Your task to perform on an android device: Add "dell xps" to the cart on amazon.com Image 0: 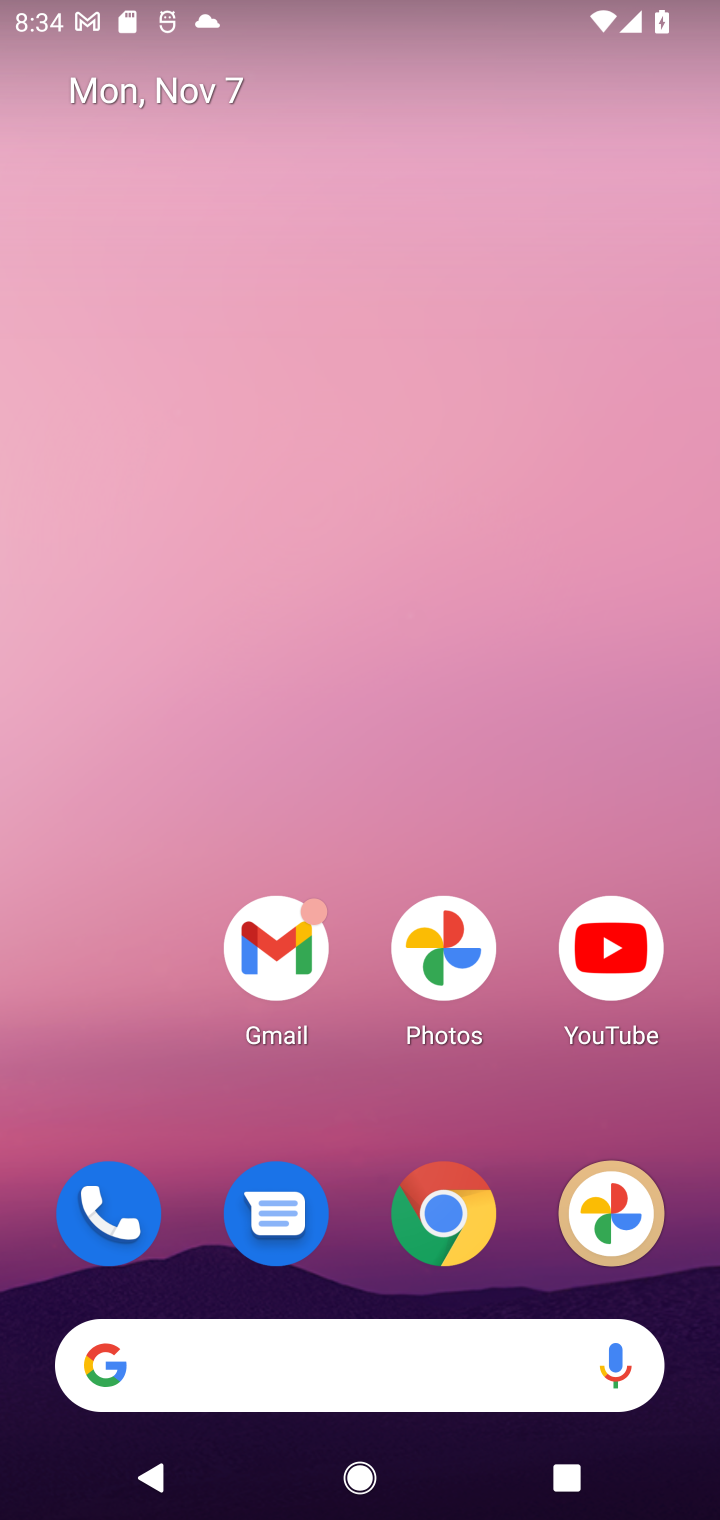
Step 0: click (448, 1208)
Your task to perform on an android device: Add "dell xps" to the cart on amazon.com Image 1: 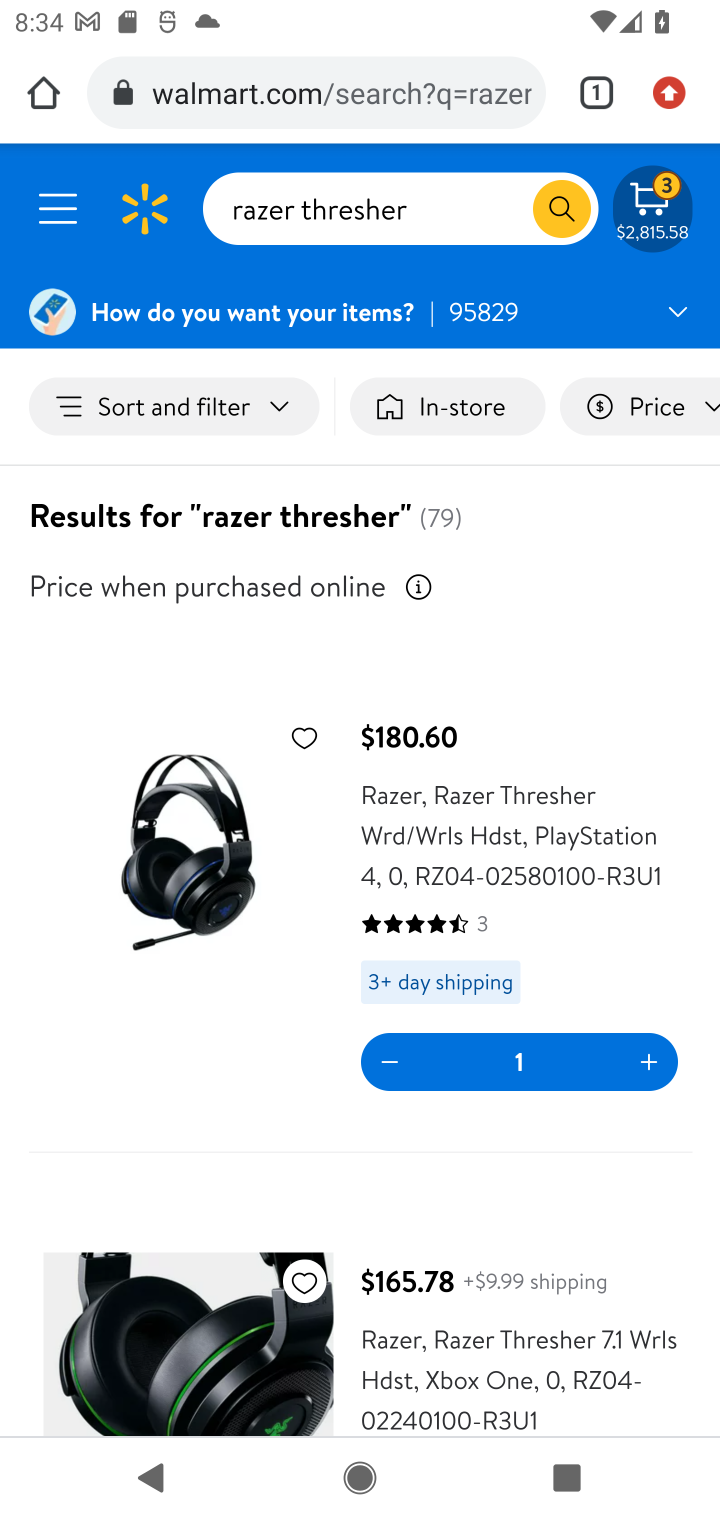
Step 1: click (296, 99)
Your task to perform on an android device: Add "dell xps" to the cart on amazon.com Image 2: 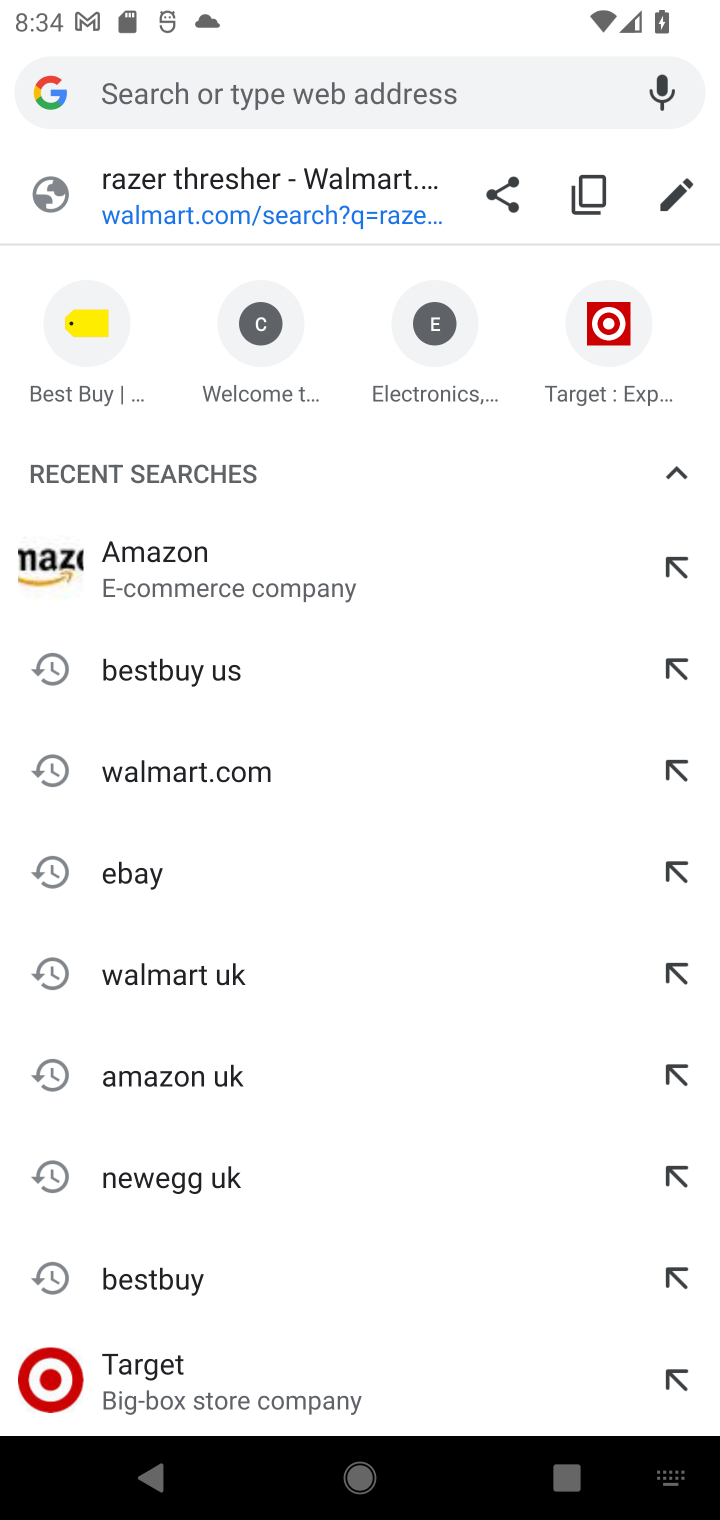
Step 2: click (186, 575)
Your task to perform on an android device: Add "dell xps" to the cart on amazon.com Image 3: 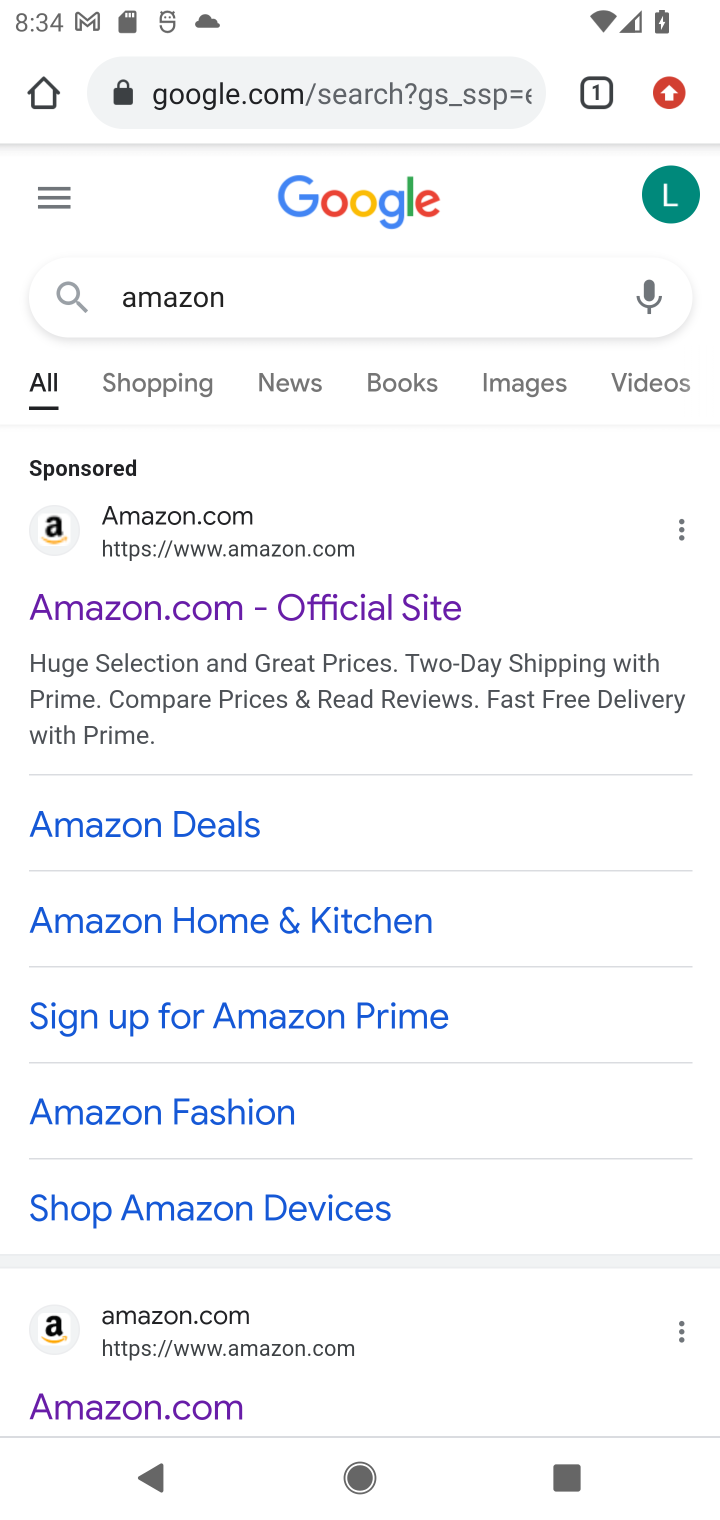
Step 3: drag from (158, 980) to (175, 414)
Your task to perform on an android device: Add "dell xps" to the cart on amazon.com Image 4: 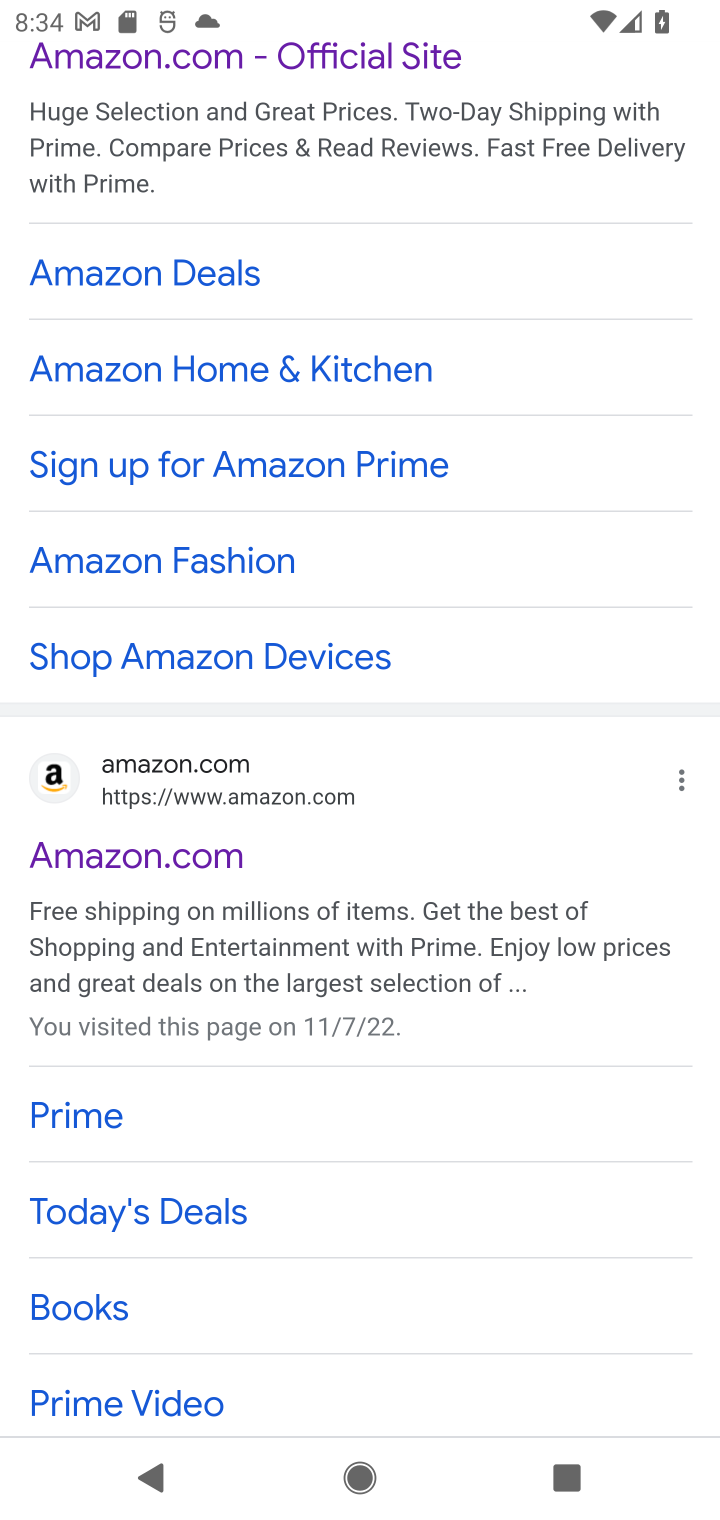
Step 4: click (86, 831)
Your task to perform on an android device: Add "dell xps" to the cart on amazon.com Image 5: 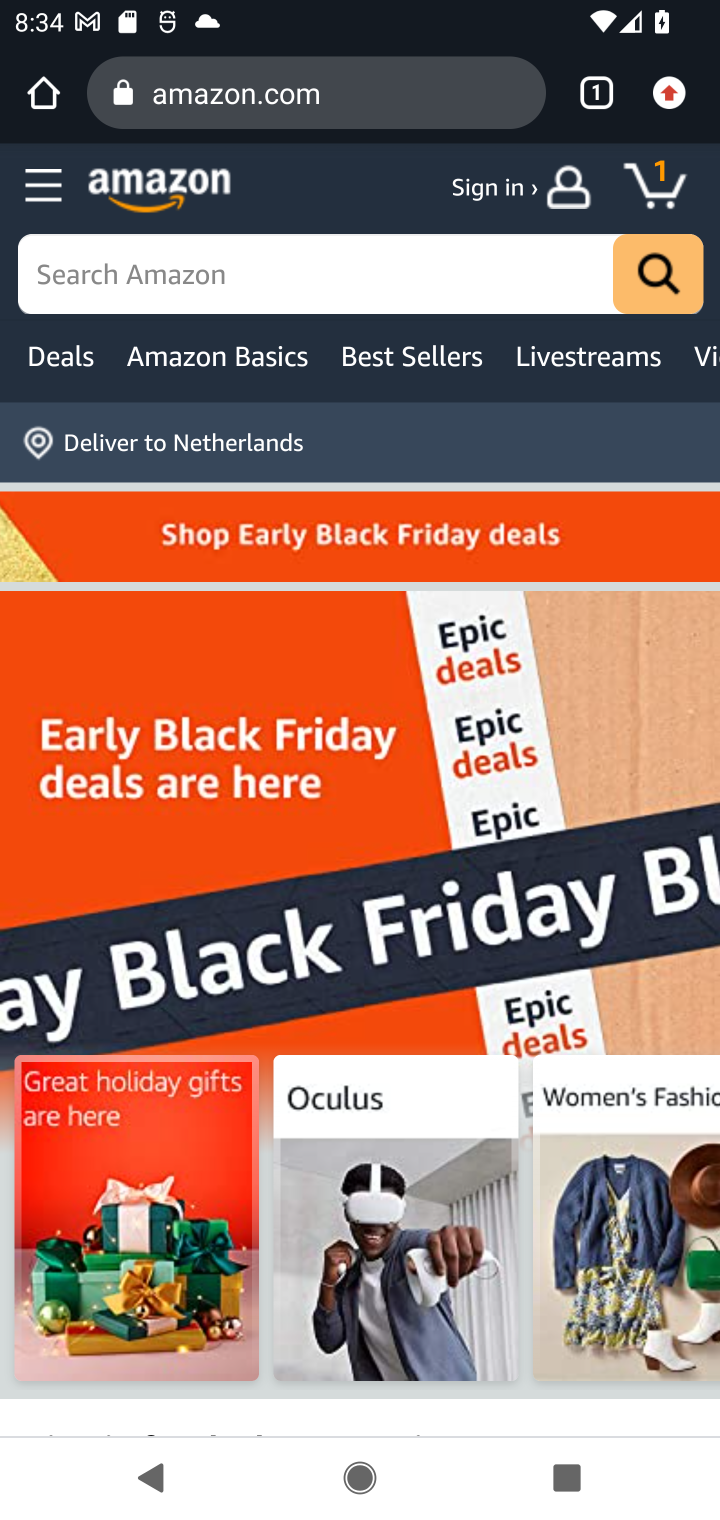
Step 5: click (226, 284)
Your task to perform on an android device: Add "dell xps" to the cart on amazon.com Image 6: 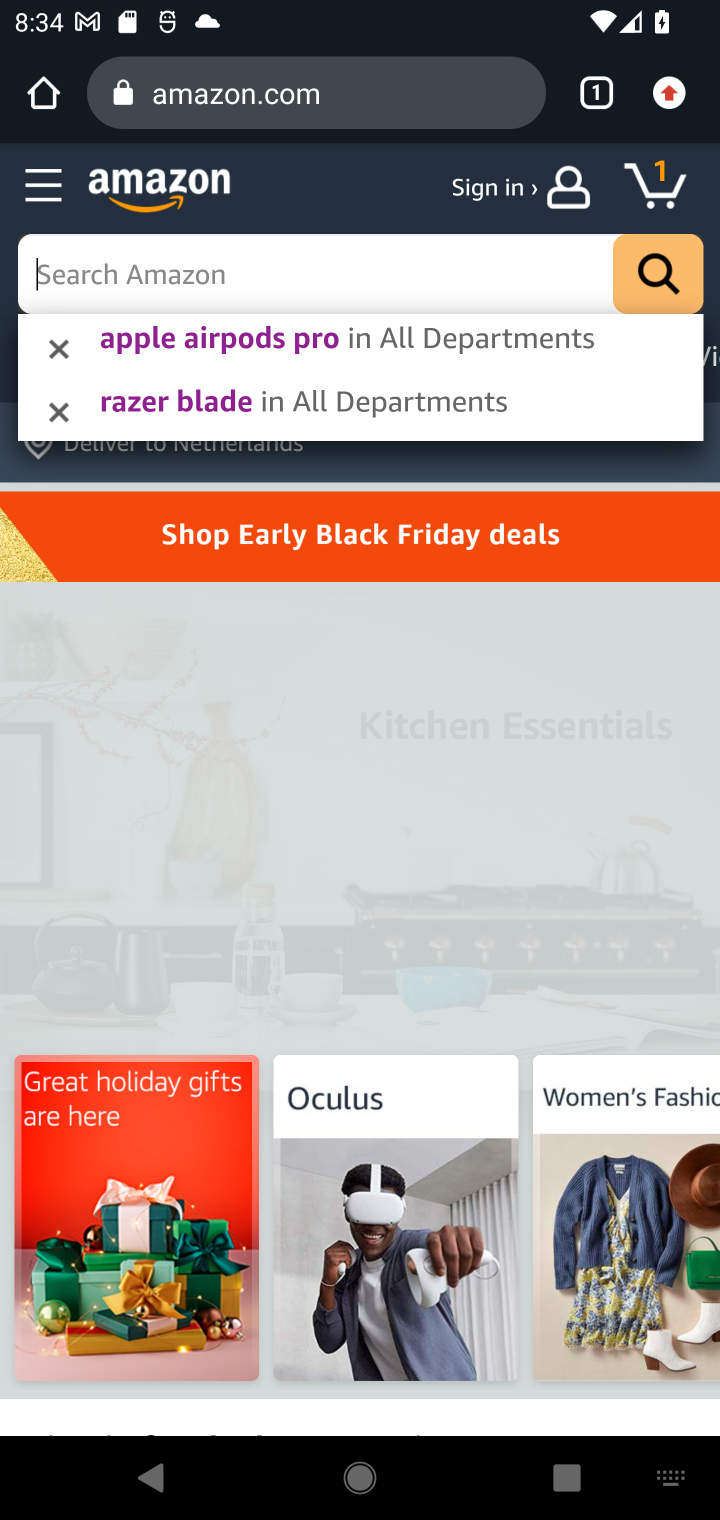
Step 6: type "dell xps"
Your task to perform on an android device: Add "dell xps" to the cart on amazon.com Image 7: 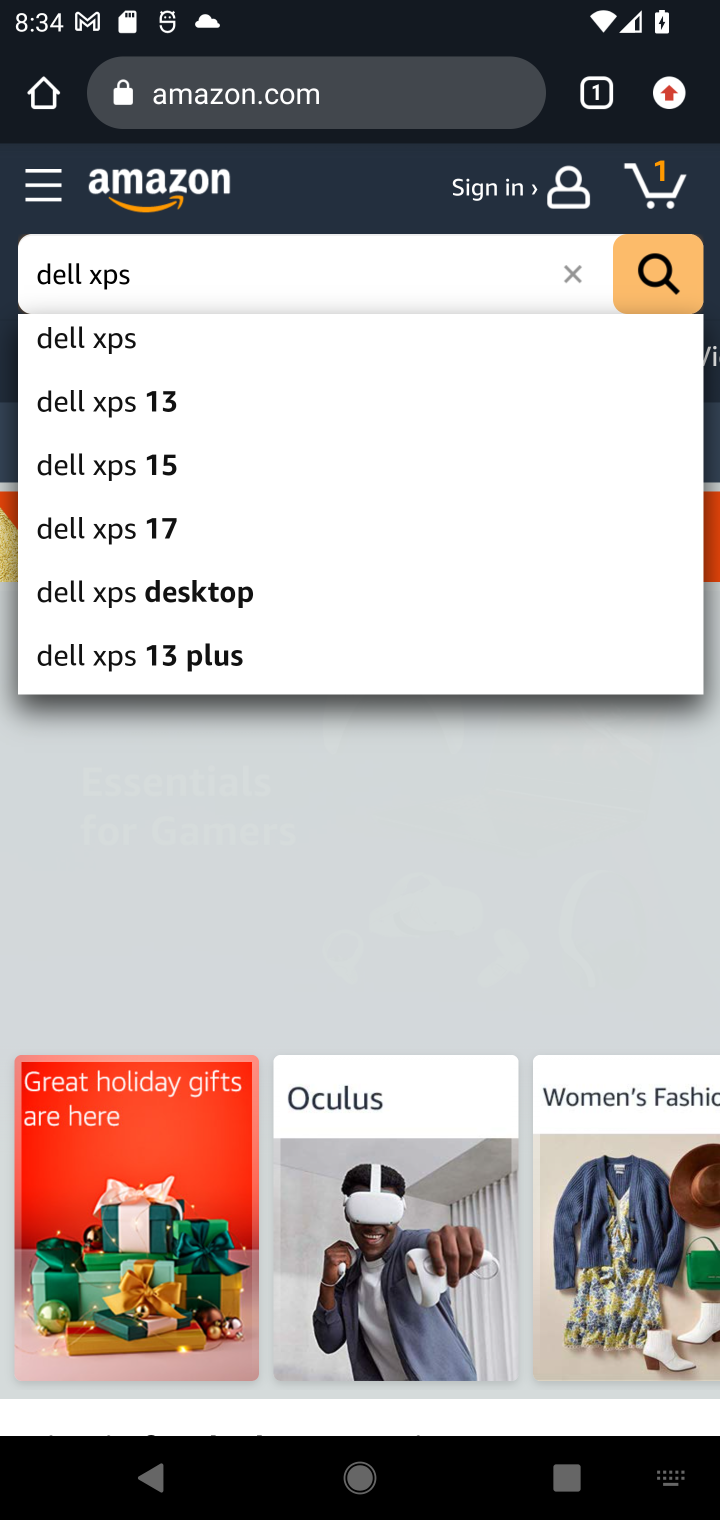
Step 7: click (102, 350)
Your task to perform on an android device: Add "dell xps" to the cart on amazon.com Image 8: 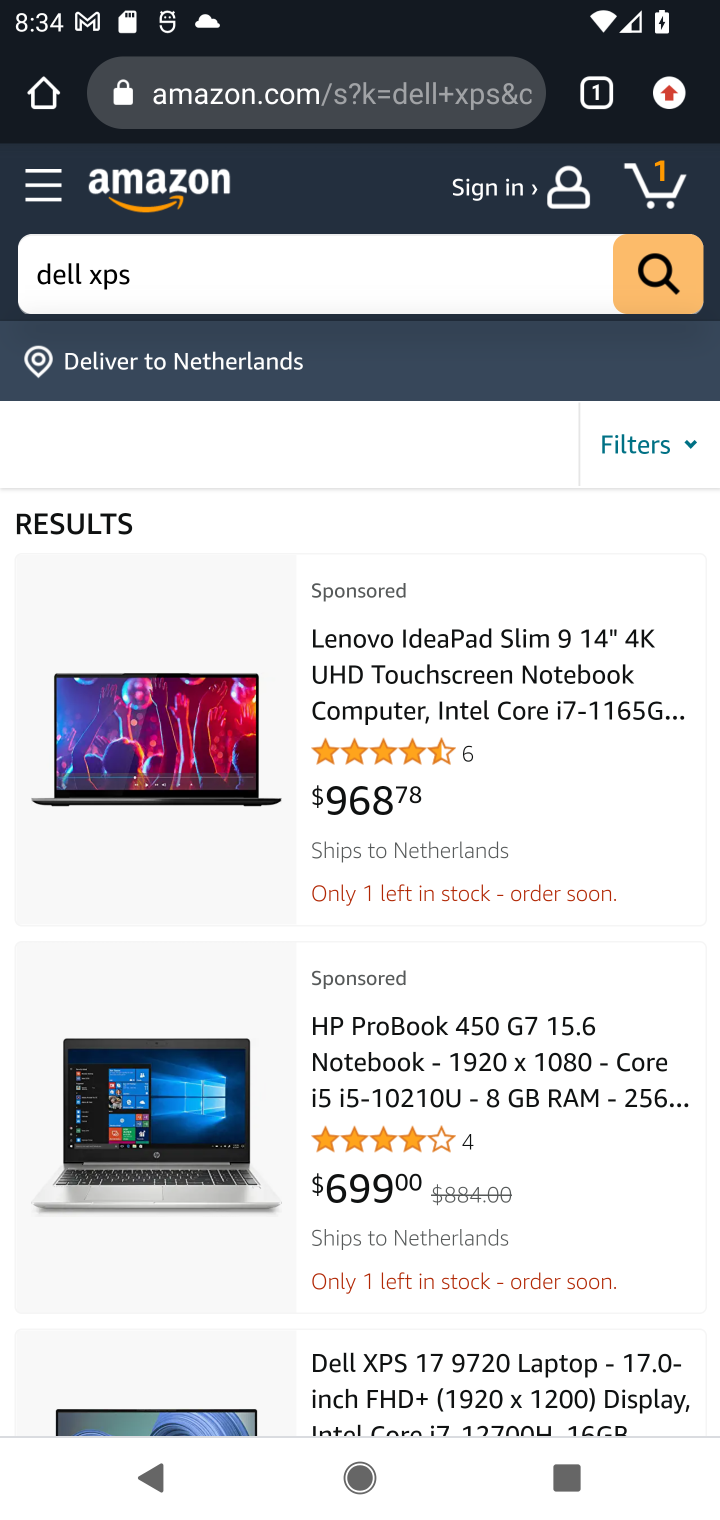
Step 8: drag from (297, 1213) to (341, 778)
Your task to perform on an android device: Add "dell xps" to the cart on amazon.com Image 9: 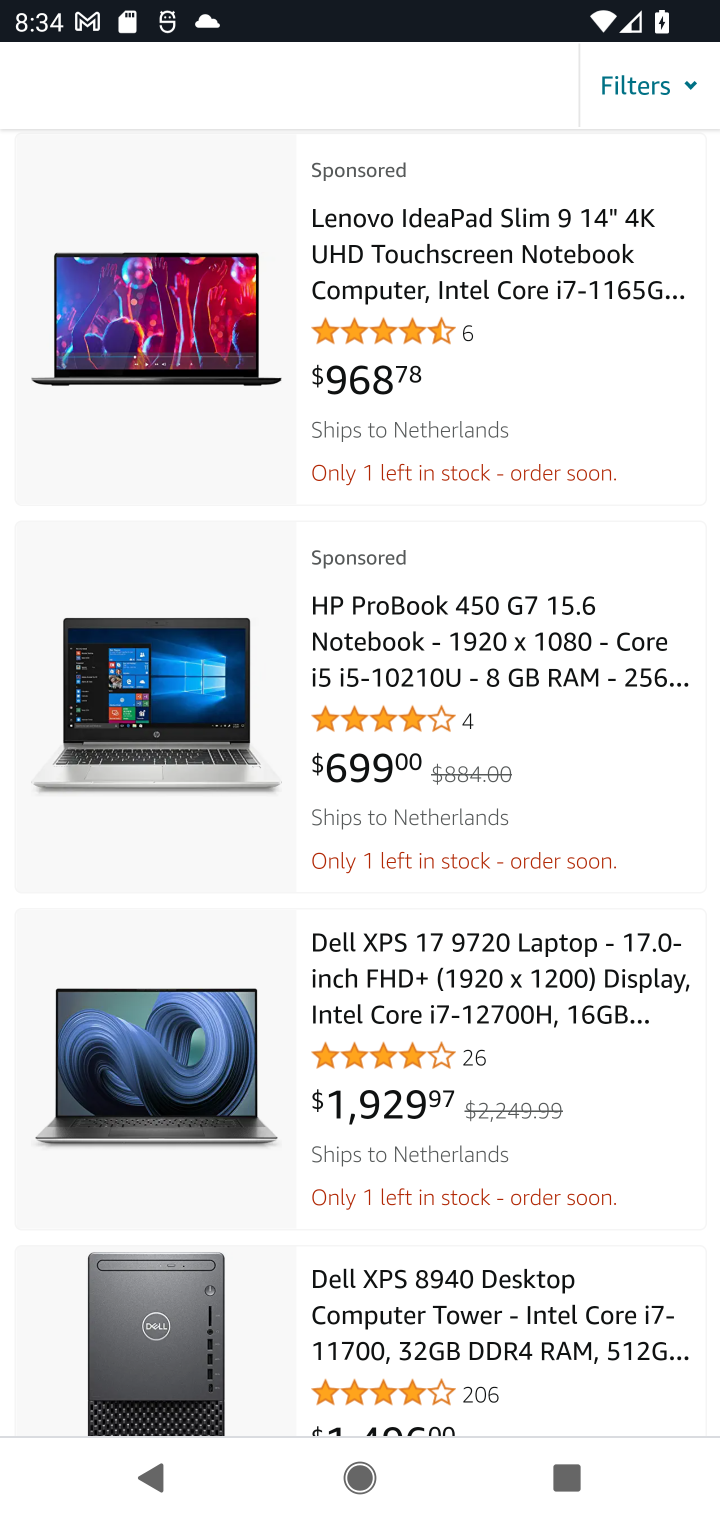
Step 9: click (310, 997)
Your task to perform on an android device: Add "dell xps" to the cart on amazon.com Image 10: 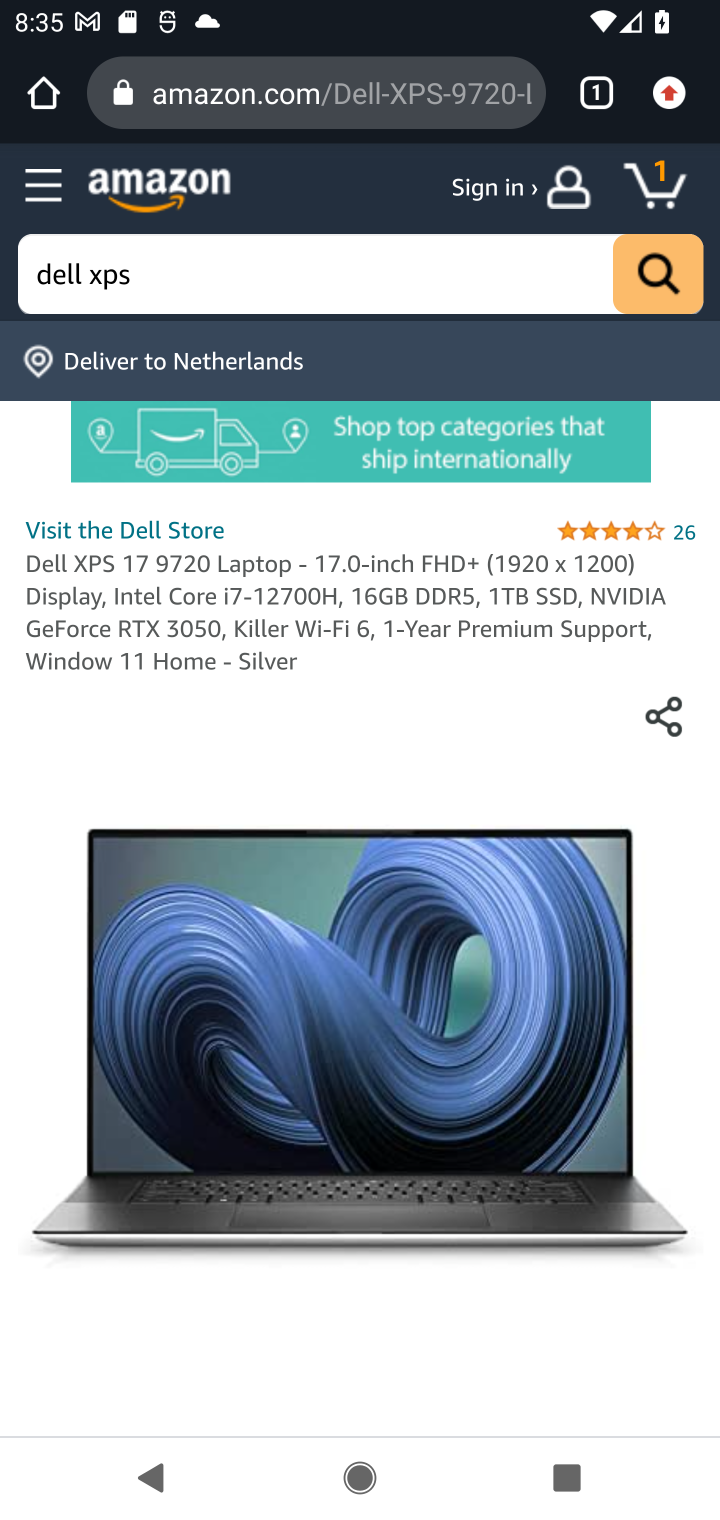
Step 10: drag from (390, 889) to (396, 309)
Your task to perform on an android device: Add "dell xps" to the cart on amazon.com Image 11: 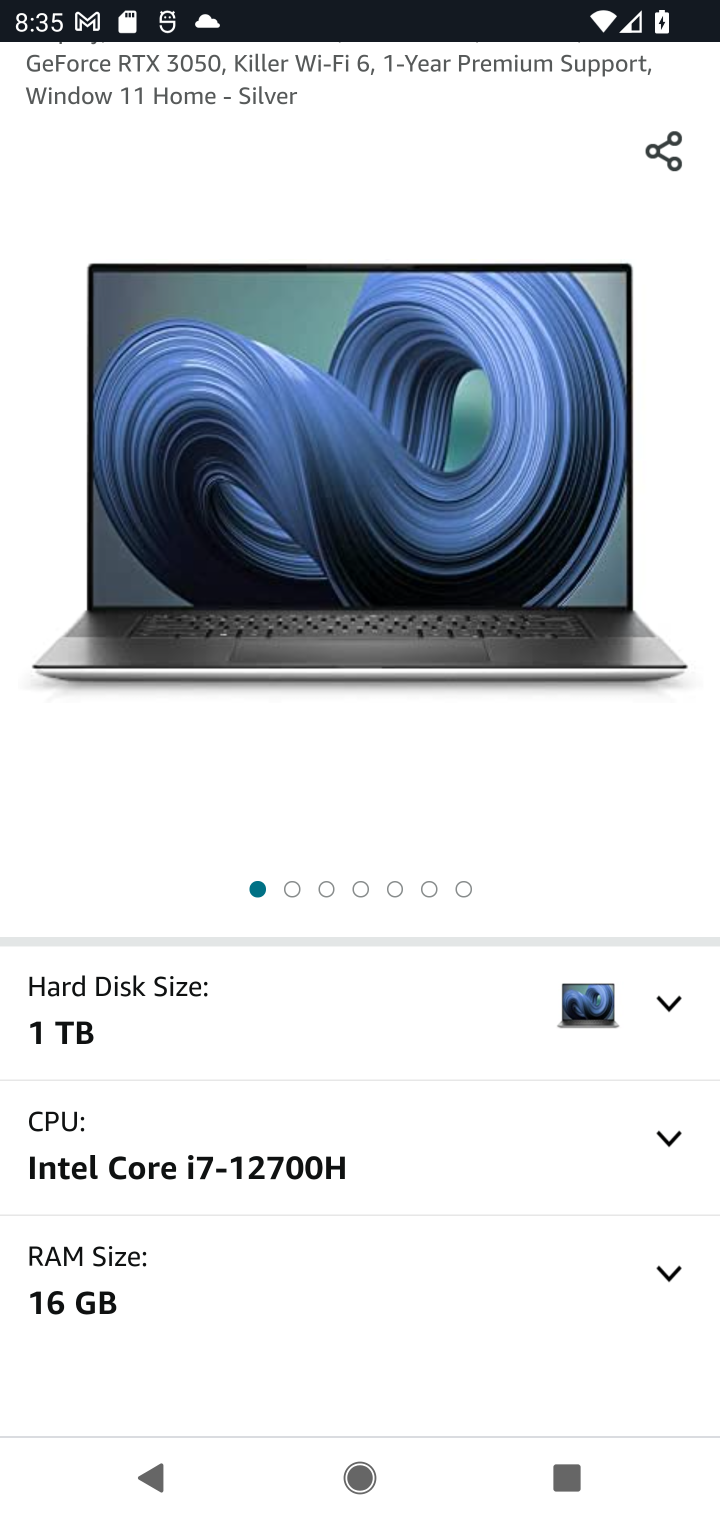
Step 11: drag from (377, 891) to (358, 404)
Your task to perform on an android device: Add "dell xps" to the cart on amazon.com Image 12: 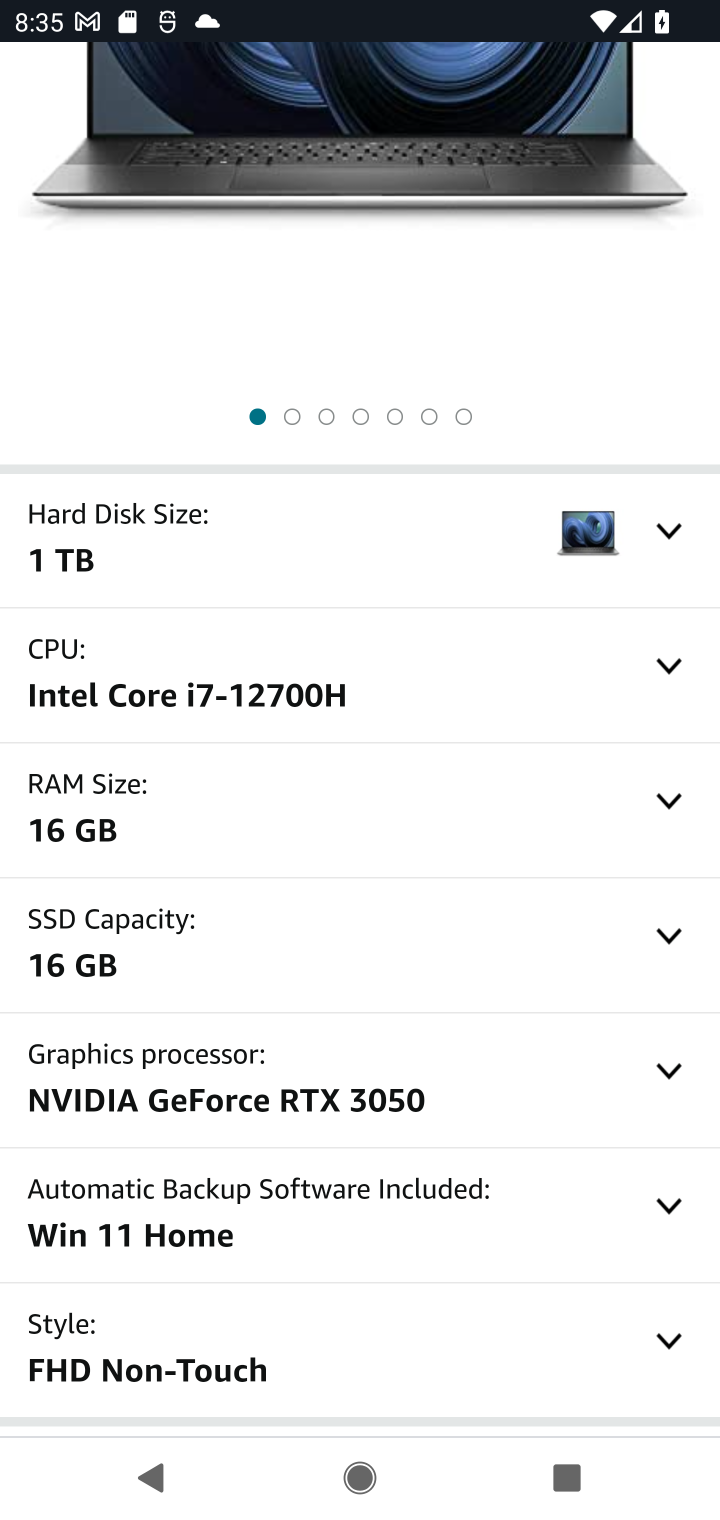
Step 12: drag from (288, 1083) to (299, 362)
Your task to perform on an android device: Add "dell xps" to the cart on amazon.com Image 13: 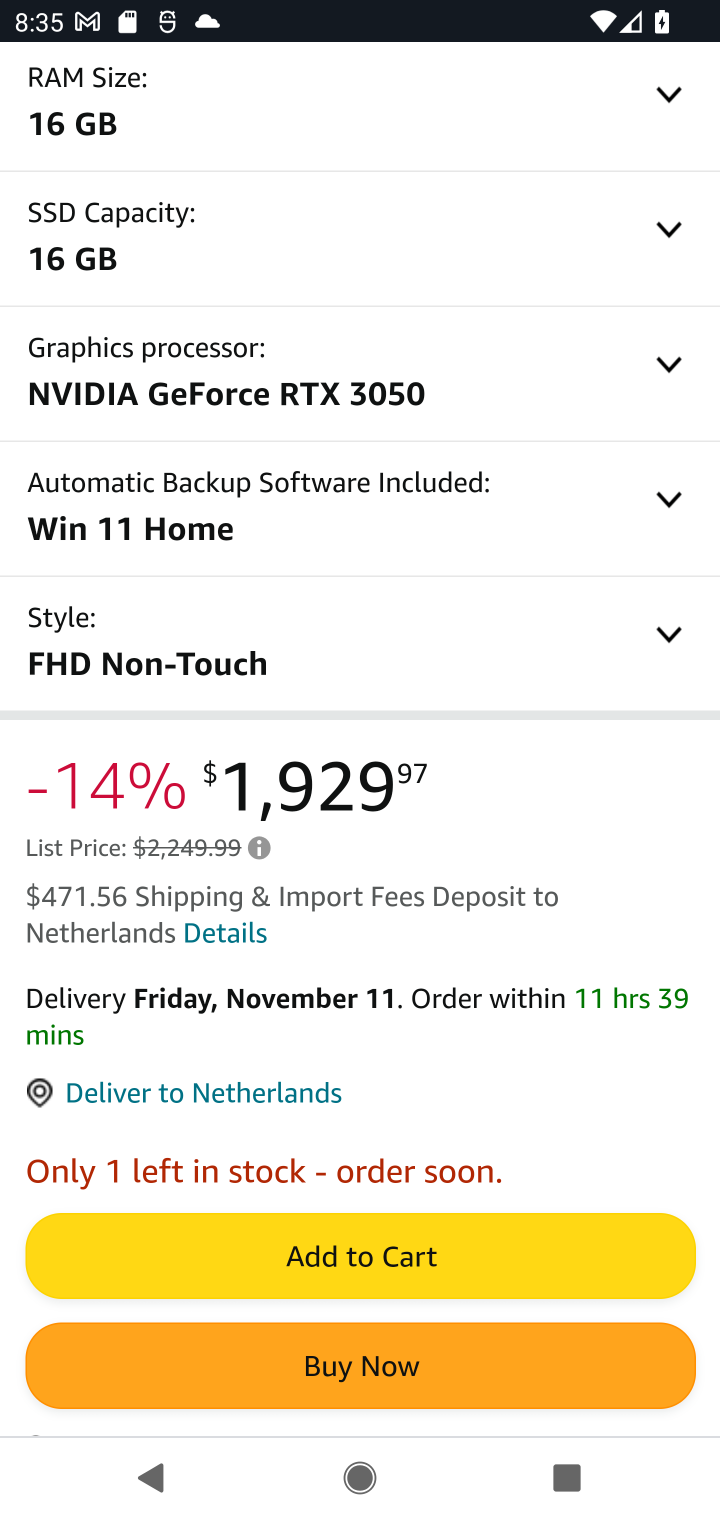
Step 13: click (337, 1250)
Your task to perform on an android device: Add "dell xps" to the cart on amazon.com Image 14: 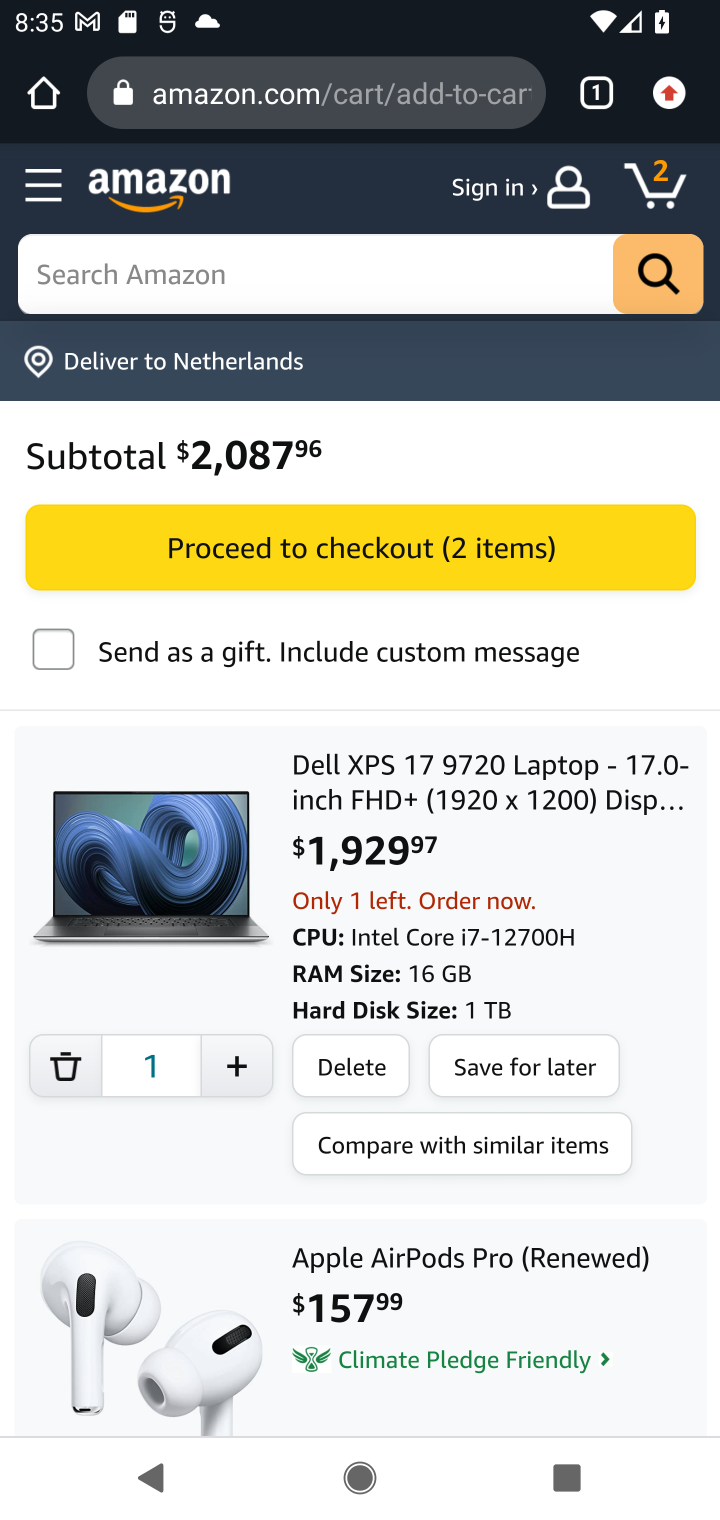
Step 14: task complete